Your task to perform on an android device: open chrome and create a bookmark for the current page Image 0: 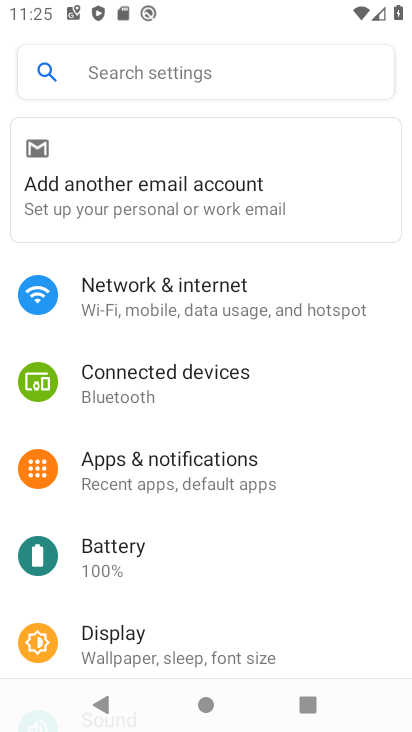
Step 0: press home button
Your task to perform on an android device: open chrome and create a bookmark for the current page Image 1: 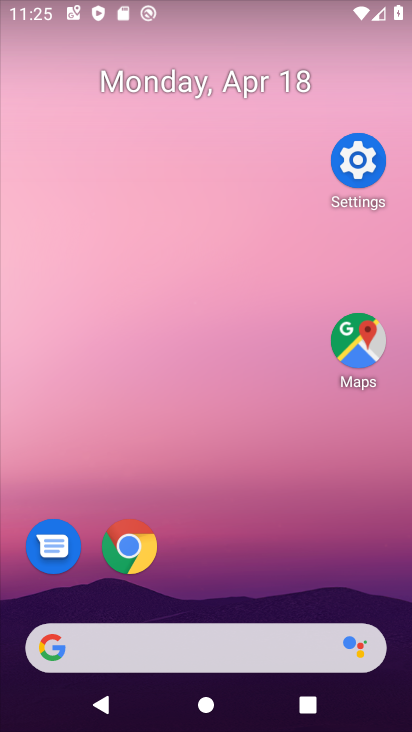
Step 1: drag from (290, 689) to (189, 69)
Your task to perform on an android device: open chrome and create a bookmark for the current page Image 2: 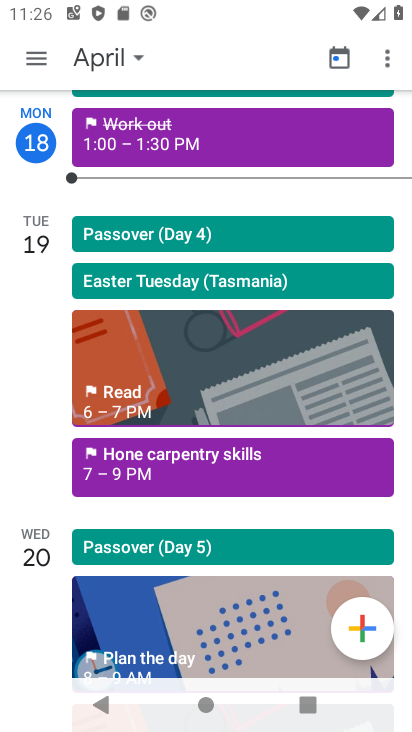
Step 2: press home button
Your task to perform on an android device: open chrome and create a bookmark for the current page Image 3: 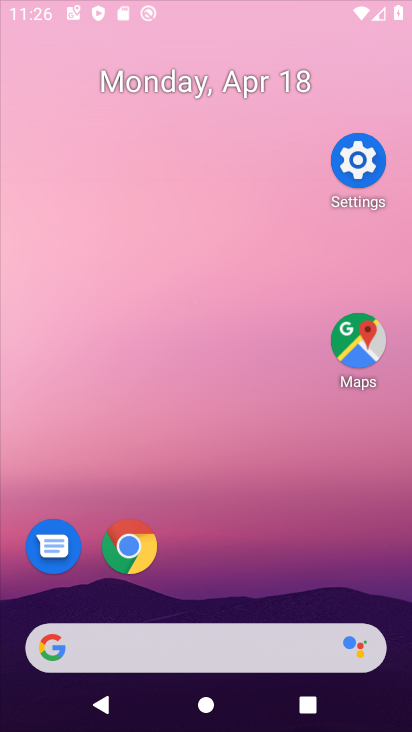
Step 3: press home button
Your task to perform on an android device: open chrome and create a bookmark for the current page Image 4: 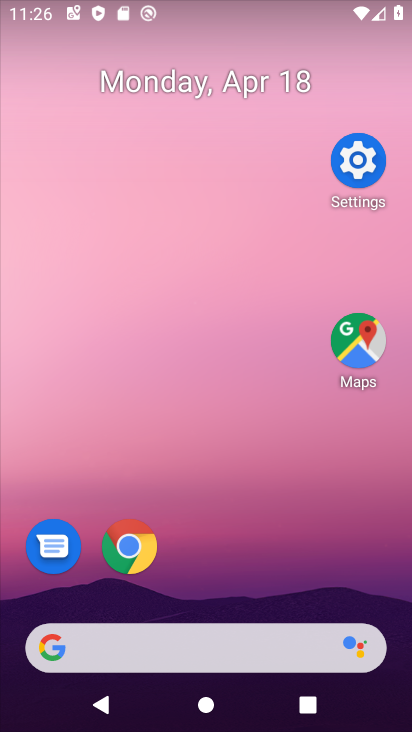
Step 4: press home button
Your task to perform on an android device: open chrome and create a bookmark for the current page Image 5: 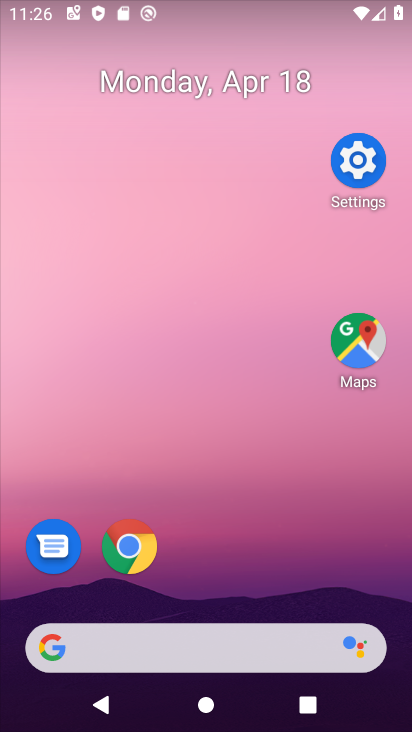
Step 5: drag from (269, 687) to (156, 264)
Your task to perform on an android device: open chrome and create a bookmark for the current page Image 6: 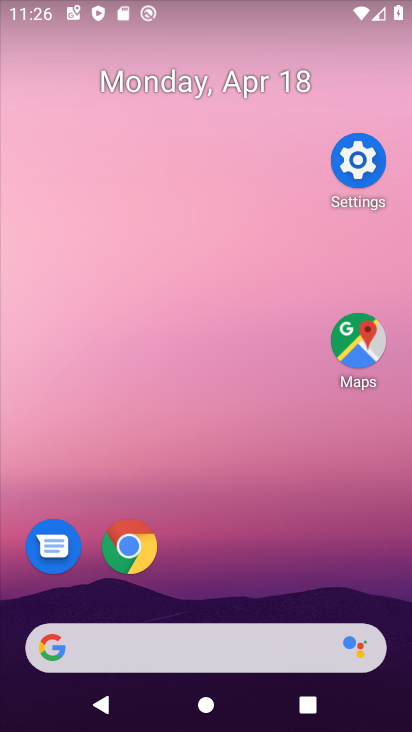
Step 6: drag from (226, 663) to (165, 348)
Your task to perform on an android device: open chrome and create a bookmark for the current page Image 7: 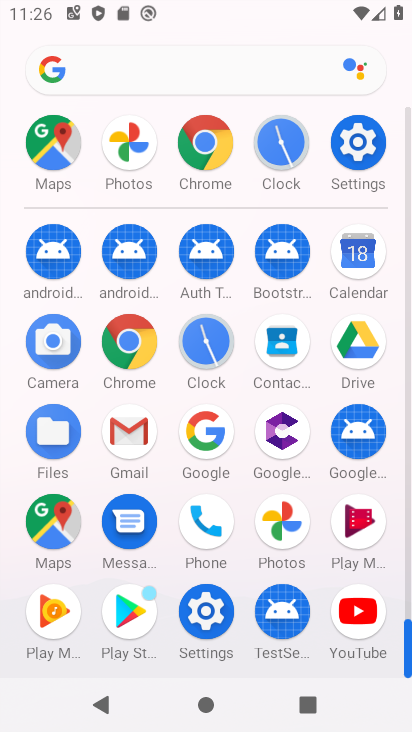
Step 7: click (203, 147)
Your task to perform on an android device: open chrome and create a bookmark for the current page Image 8: 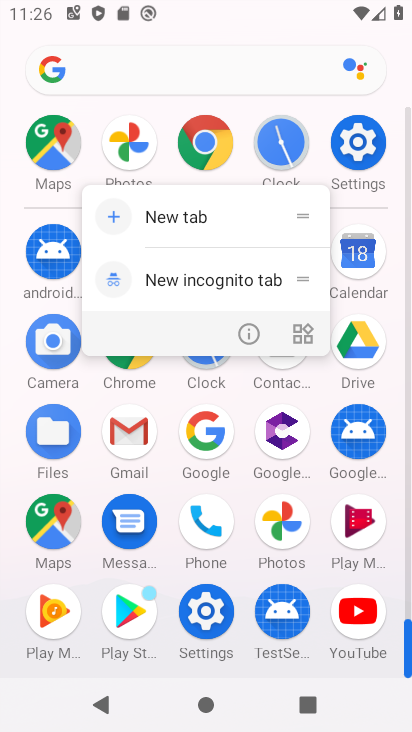
Step 8: click (205, 151)
Your task to perform on an android device: open chrome and create a bookmark for the current page Image 9: 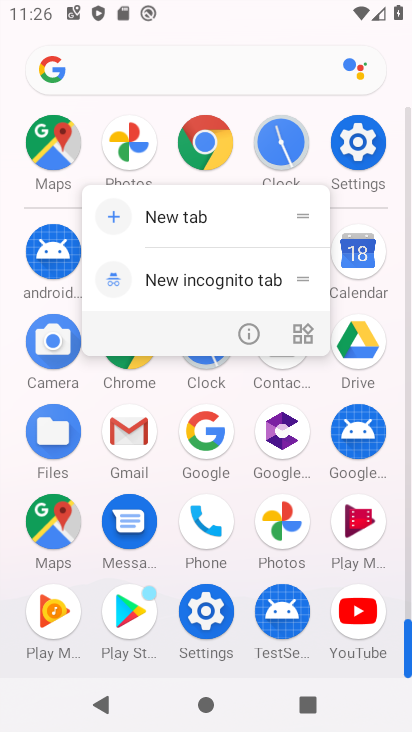
Step 9: click (205, 151)
Your task to perform on an android device: open chrome and create a bookmark for the current page Image 10: 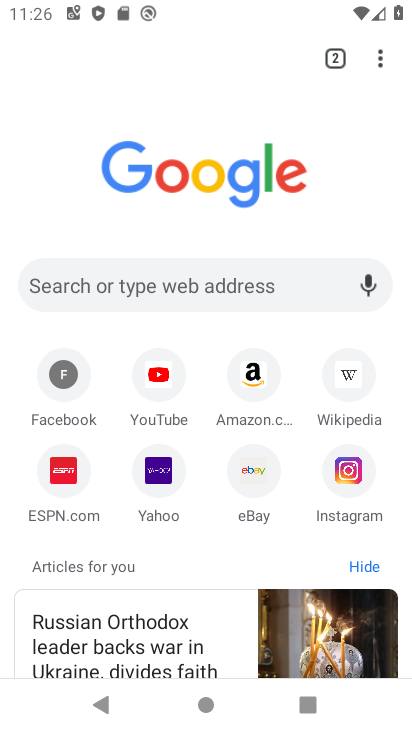
Step 10: click (80, 275)
Your task to perform on an android device: open chrome and create a bookmark for the current page Image 11: 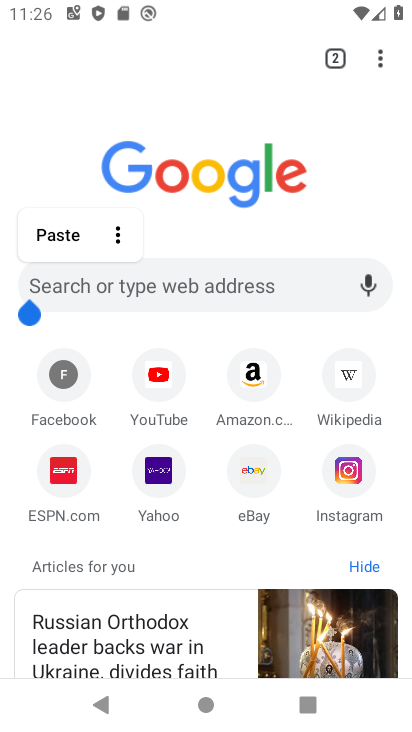
Step 11: drag from (78, 276) to (102, 330)
Your task to perform on an android device: open chrome and create a bookmark for the current page Image 12: 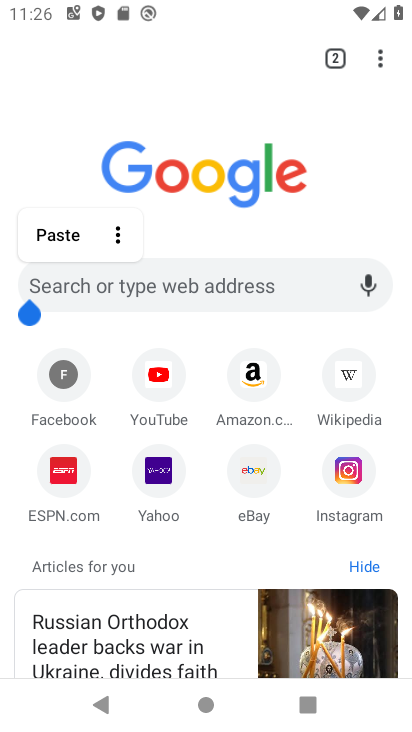
Step 12: click (182, 278)
Your task to perform on an android device: open chrome and create a bookmark for the current page Image 13: 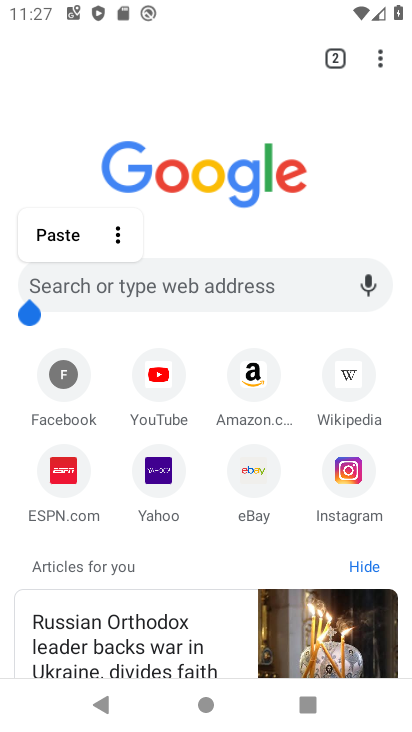
Step 13: click (114, 273)
Your task to perform on an android device: open chrome and create a bookmark for the current page Image 14: 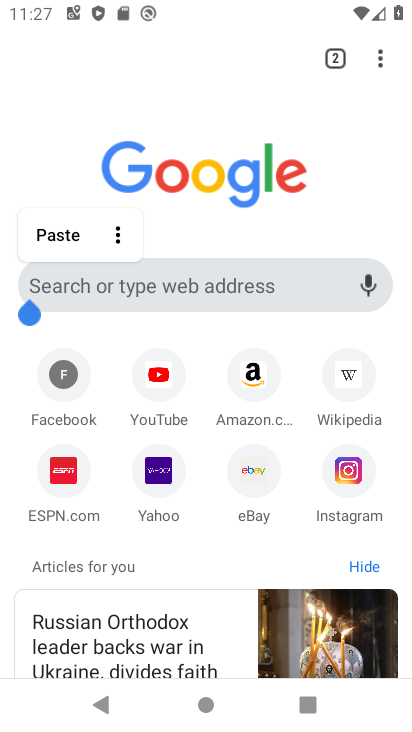
Step 14: click (127, 285)
Your task to perform on an android device: open chrome and create a bookmark for the current page Image 15: 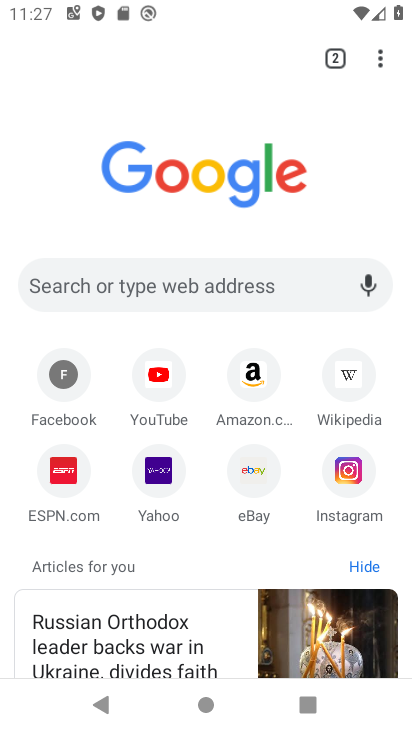
Step 15: type "www.mtrityu.com"
Your task to perform on an android device: open chrome and create a bookmark for the current page Image 16: 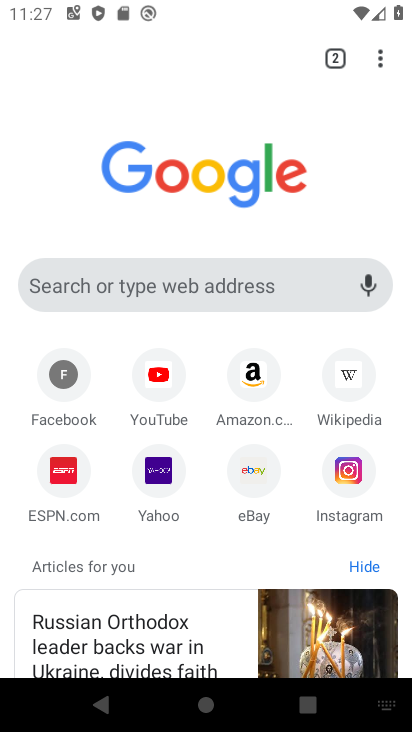
Step 16: click (163, 278)
Your task to perform on an android device: open chrome and create a bookmark for the current page Image 17: 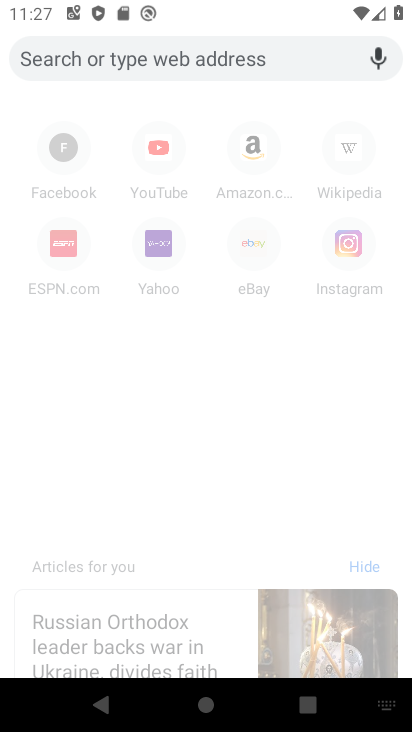
Step 17: click (163, 278)
Your task to perform on an android device: open chrome and create a bookmark for the current page Image 18: 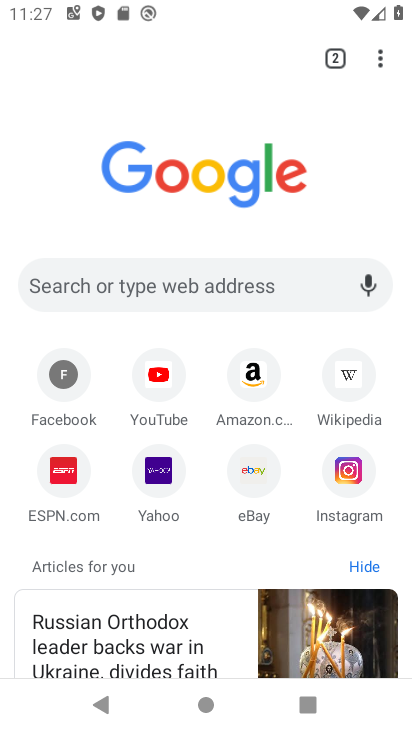
Step 18: click (103, 286)
Your task to perform on an android device: open chrome and create a bookmark for the current page Image 19: 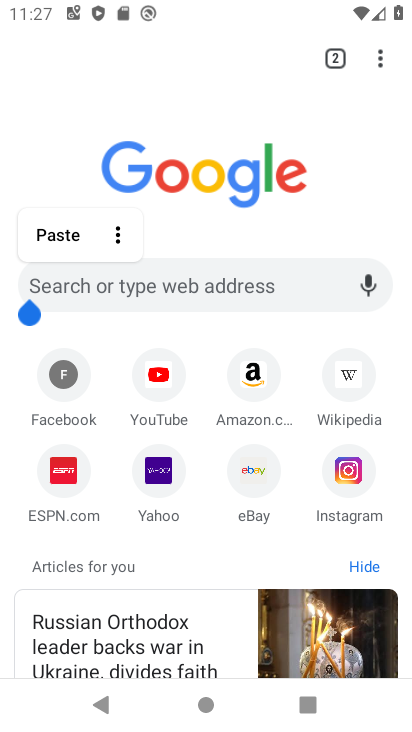
Step 19: click (130, 270)
Your task to perform on an android device: open chrome and create a bookmark for the current page Image 20: 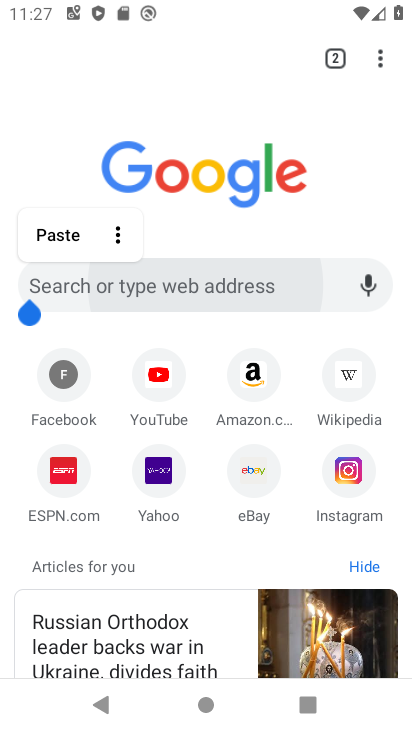
Step 20: click (147, 285)
Your task to perform on an android device: open chrome and create a bookmark for the current page Image 21: 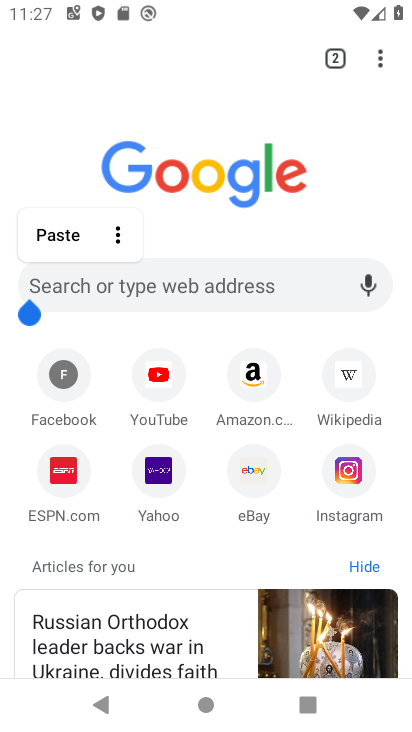
Step 21: click (93, 287)
Your task to perform on an android device: open chrome and create a bookmark for the current page Image 22: 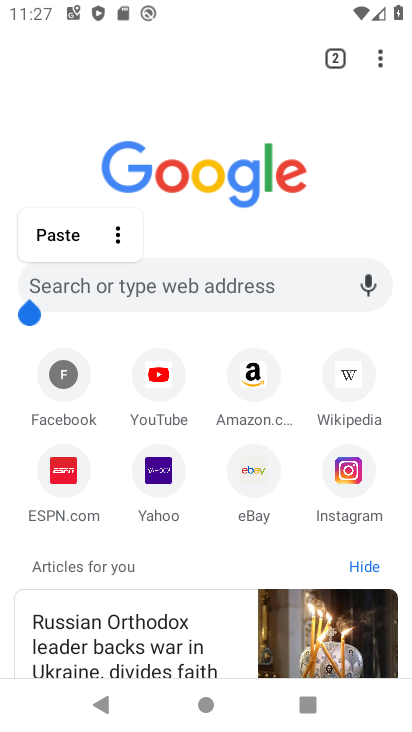
Step 22: click (94, 287)
Your task to perform on an android device: open chrome and create a bookmark for the current page Image 23: 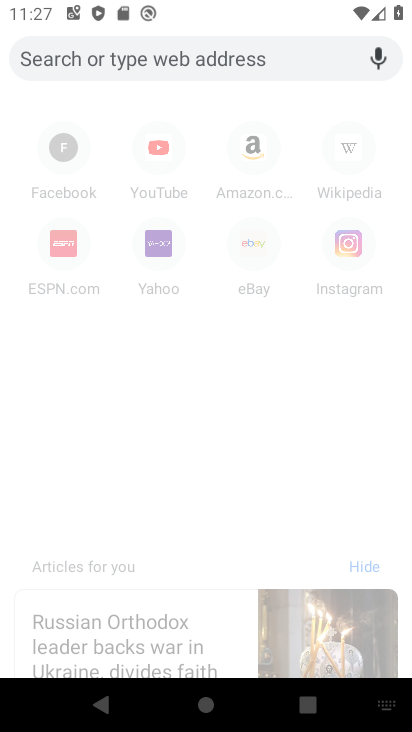
Step 23: type "www.mrityu.com"
Your task to perform on an android device: open chrome and create a bookmark for the current page Image 24: 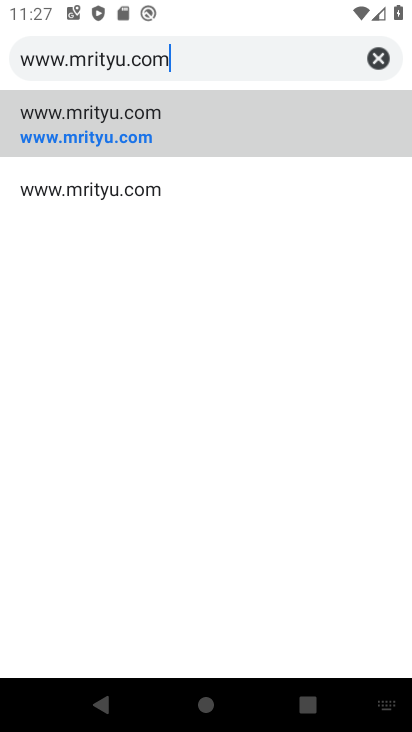
Step 24: click (120, 130)
Your task to perform on an android device: open chrome and create a bookmark for the current page Image 25: 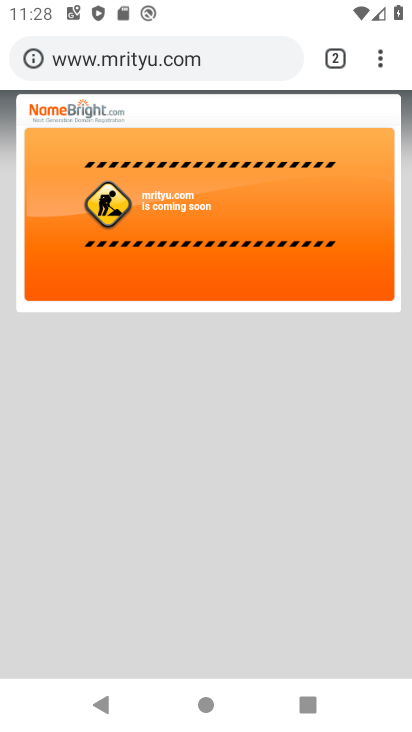
Step 25: task complete